Your task to perform on an android device: Open network settings Image 0: 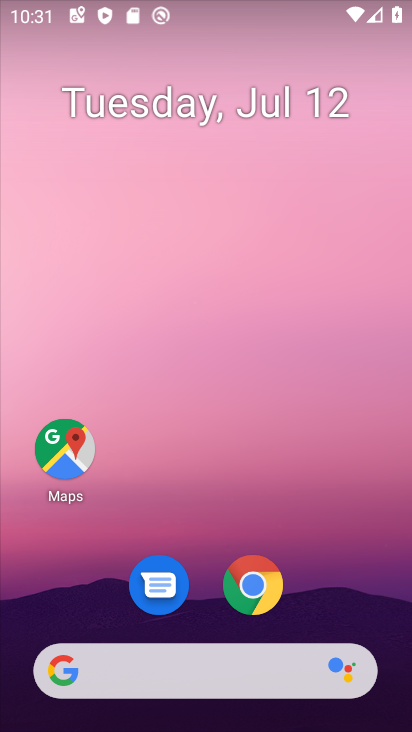
Step 0: drag from (323, 591) to (315, 0)
Your task to perform on an android device: Open network settings Image 1: 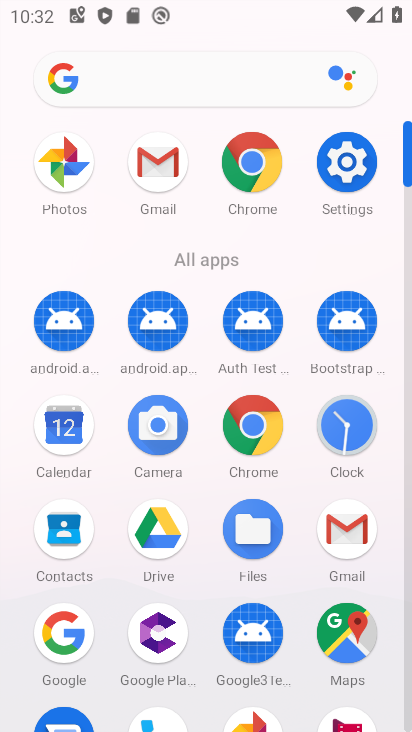
Step 1: click (346, 165)
Your task to perform on an android device: Open network settings Image 2: 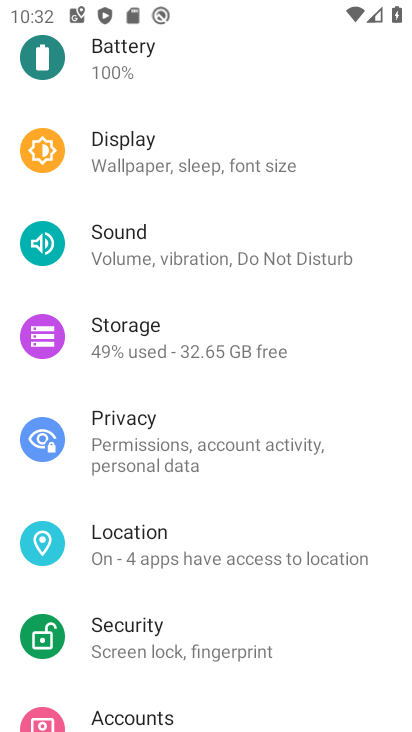
Step 2: drag from (222, 207) to (259, 572)
Your task to perform on an android device: Open network settings Image 3: 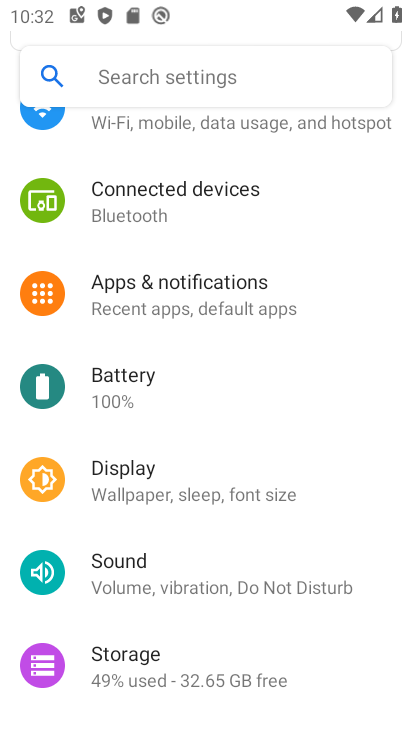
Step 3: drag from (204, 271) to (228, 527)
Your task to perform on an android device: Open network settings Image 4: 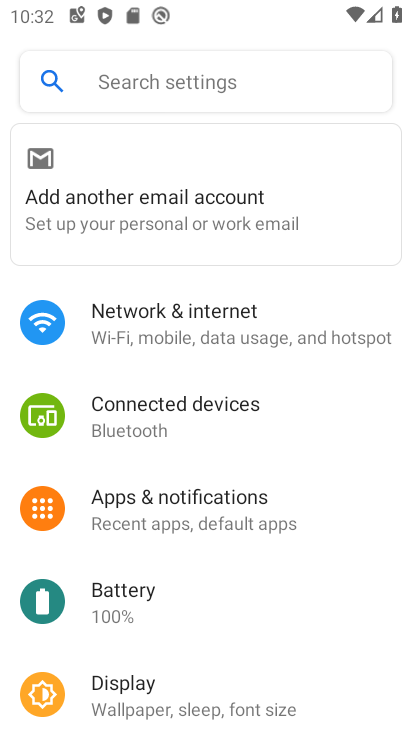
Step 4: click (220, 332)
Your task to perform on an android device: Open network settings Image 5: 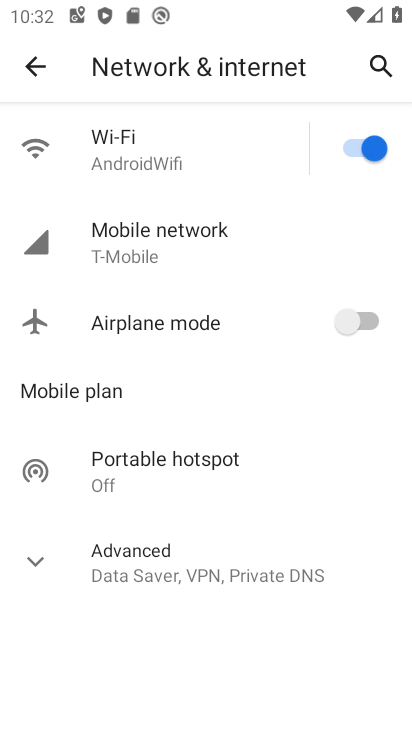
Step 5: task complete